Your task to perform on an android device: Go to notification settings Image 0: 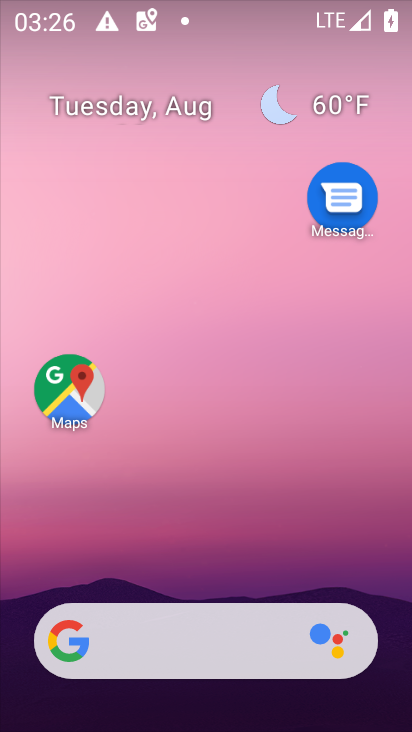
Step 0: drag from (219, 588) to (172, 128)
Your task to perform on an android device: Go to notification settings Image 1: 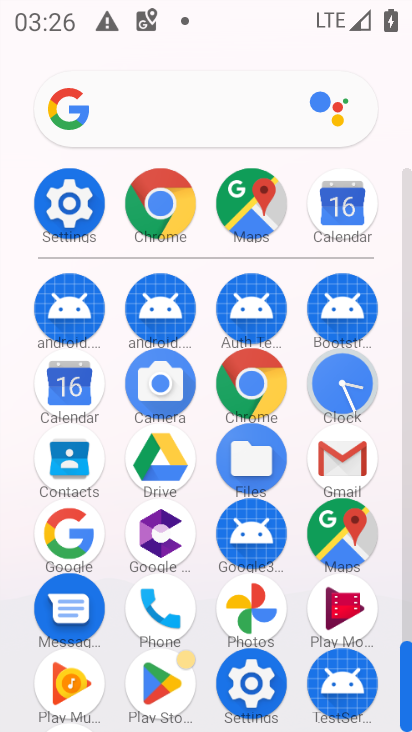
Step 1: click (71, 202)
Your task to perform on an android device: Go to notification settings Image 2: 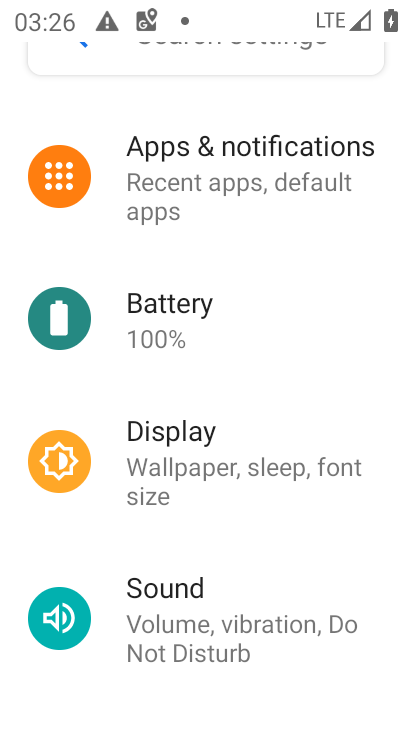
Step 2: drag from (248, 618) to (234, 190)
Your task to perform on an android device: Go to notification settings Image 3: 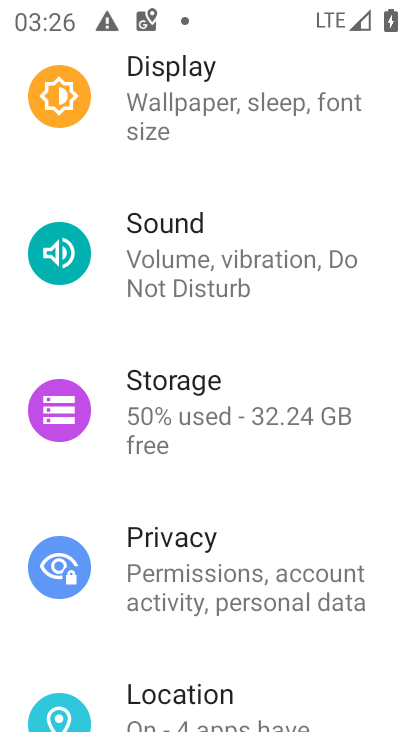
Step 3: drag from (234, 190) to (285, 639)
Your task to perform on an android device: Go to notification settings Image 4: 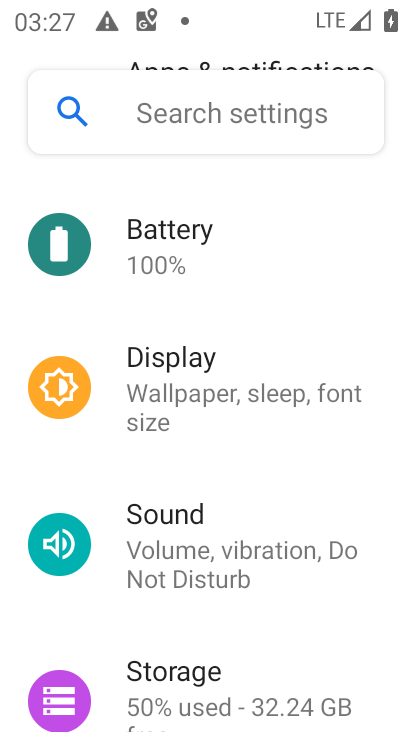
Step 4: drag from (179, 189) to (224, 509)
Your task to perform on an android device: Go to notification settings Image 5: 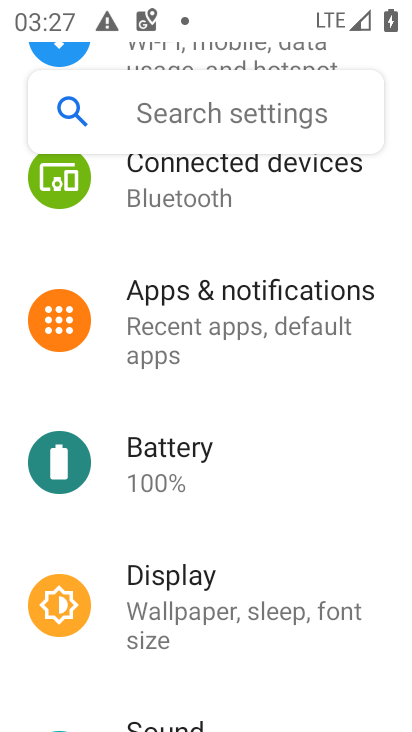
Step 5: click (206, 367)
Your task to perform on an android device: Go to notification settings Image 6: 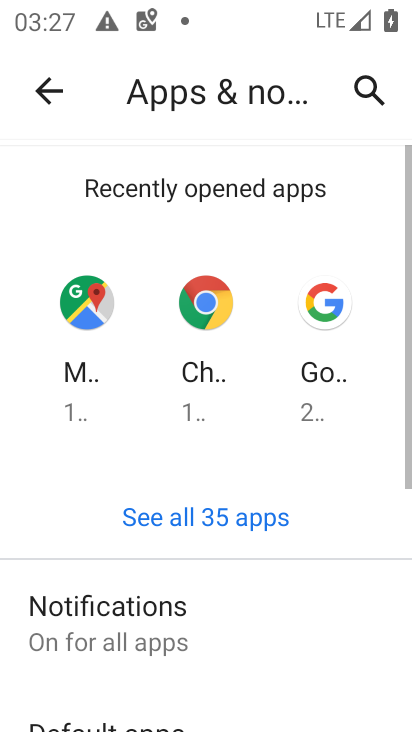
Step 6: task complete